Your task to perform on an android device: Open my contact list Image 0: 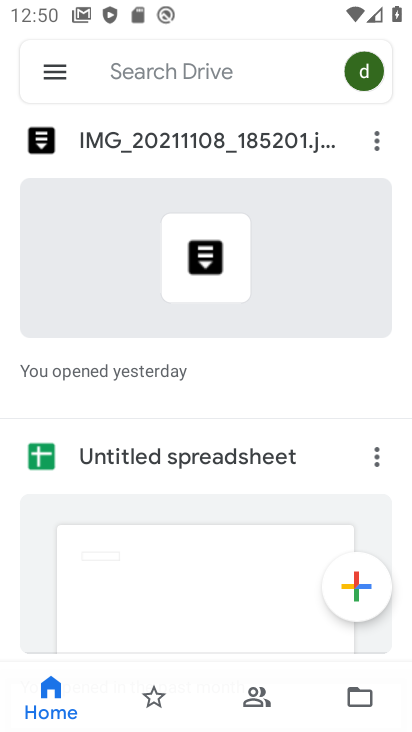
Step 0: press home button
Your task to perform on an android device: Open my contact list Image 1: 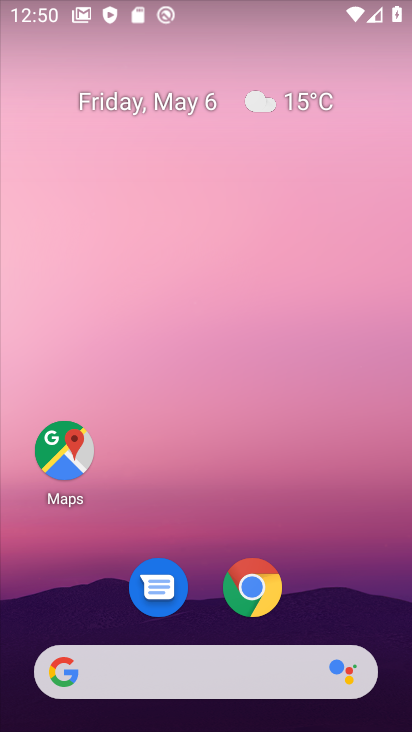
Step 1: drag from (319, 605) to (280, 117)
Your task to perform on an android device: Open my contact list Image 2: 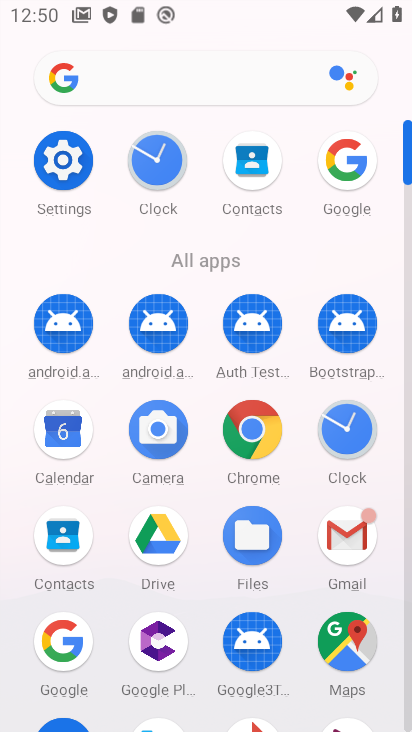
Step 2: click (62, 556)
Your task to perform on an android device: Open my contact list Image 3: 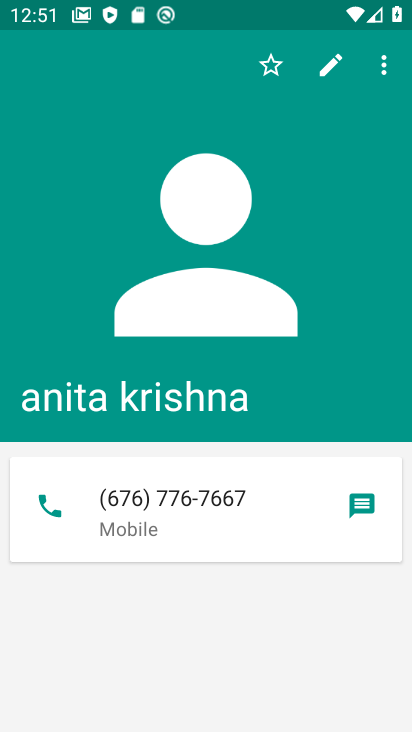
Step 3: task complete